Your task to perform on an android device: change the clock display to show seconds Image 0: 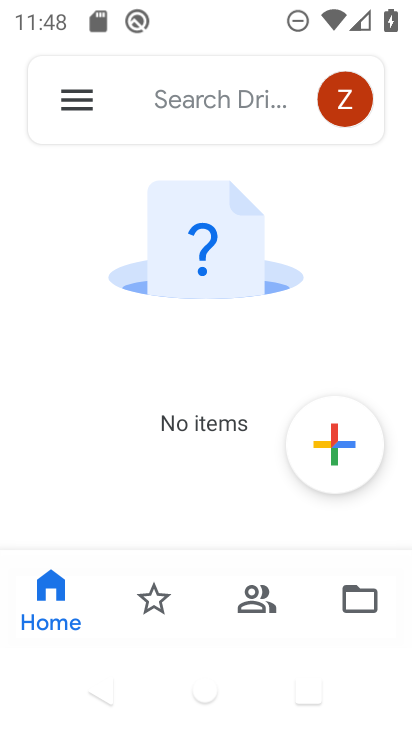
Step 0: press home button
Your task to perform on an android device: change the clock display to show seconds Image 1: 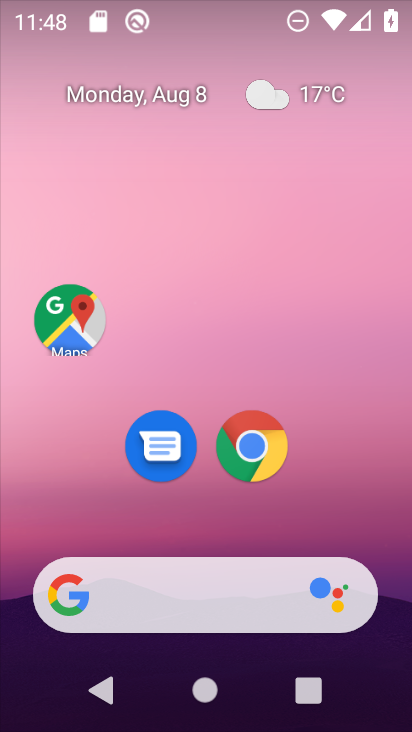
Step 1: drag from (408, 614) to (394, 105)
Your task to perform on an android device: change the clock display to show seconds Image 2: 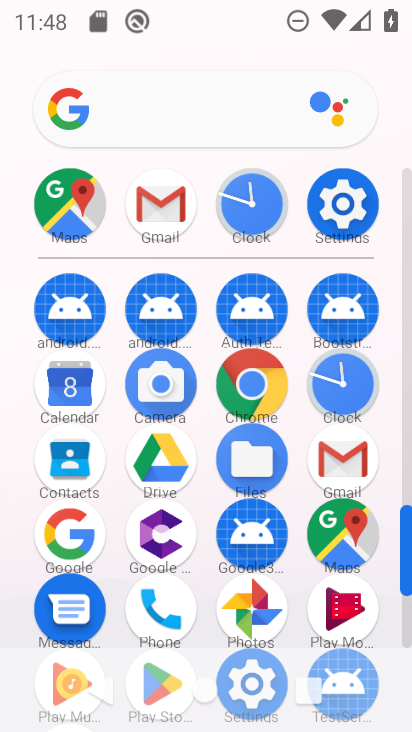
Step 2: click (341, 388)
Your task to perform on an android device: change the clock display to show seconds Image 3: 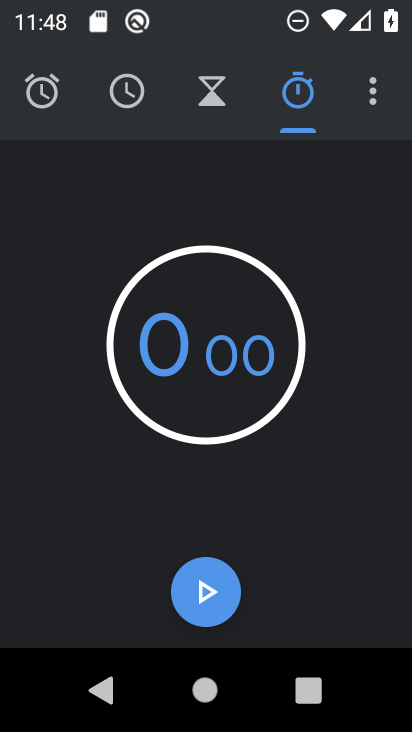
Step 3: click (370, 105)
Your task to perform on an android device: change the clock display to show seconds Image 4: 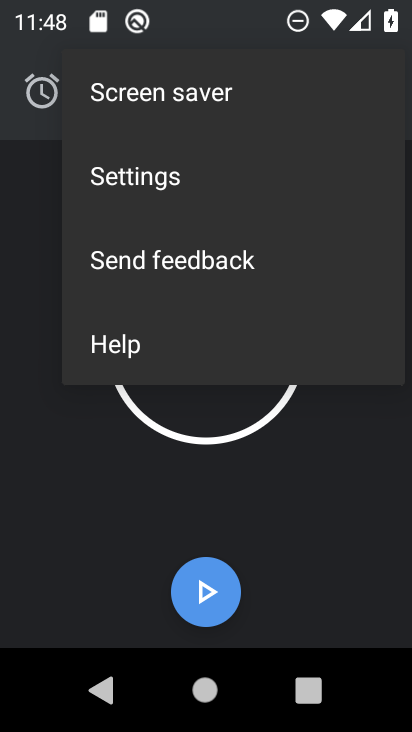
Step 4: click (142, 188)
Your task to perform on an android device: change the clock display to show seconds Image 5: 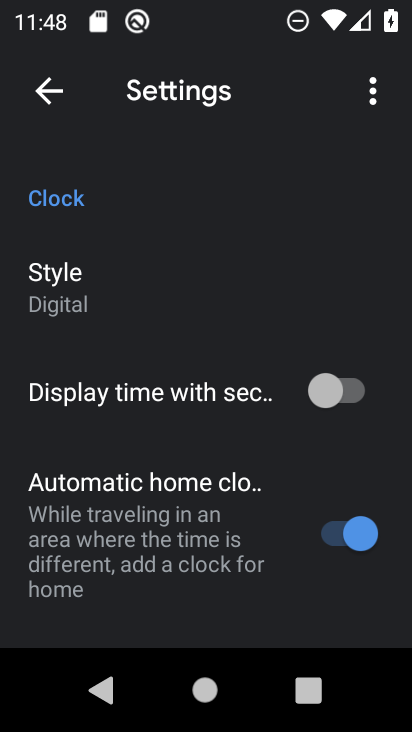
Step 5: click (347, 386)
Your task to perform on an android device: change the clock display to show seconds Image 6: 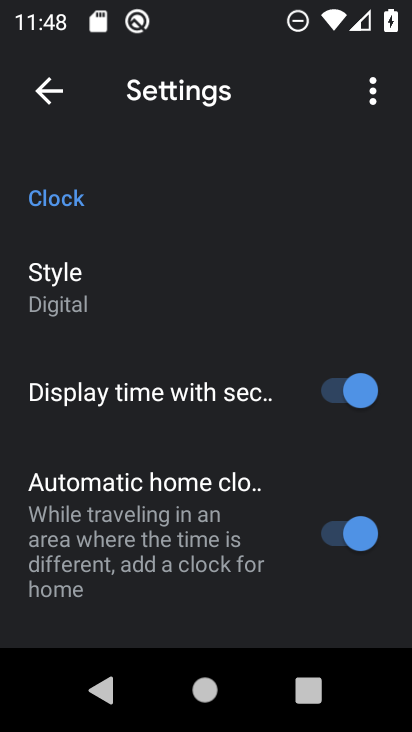
Step 6: task complete